Your task to perform on an android device: Open Google Maps Image 0: 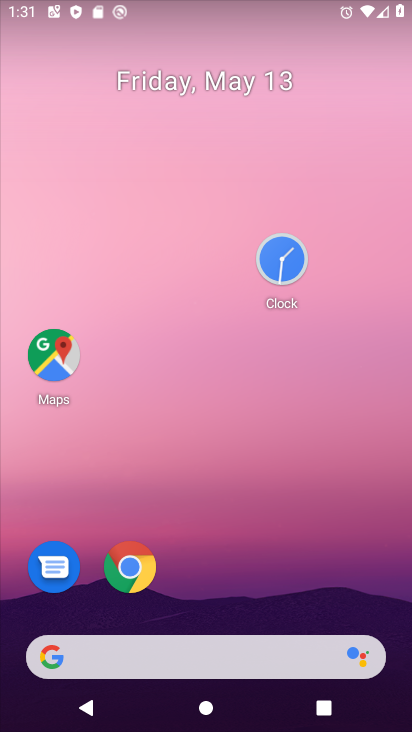
Step 0: click (45, 386)
Your task to perform on an android device: Open Google Maps Image 1: 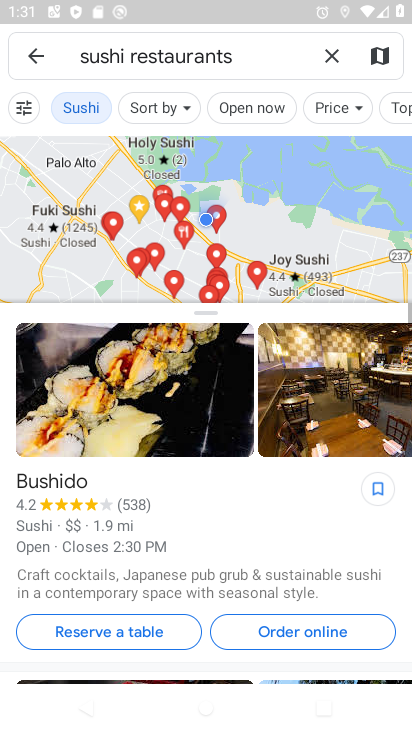
Step 1: task complete